Your task to perform on an android device: turn off location history Image 0: 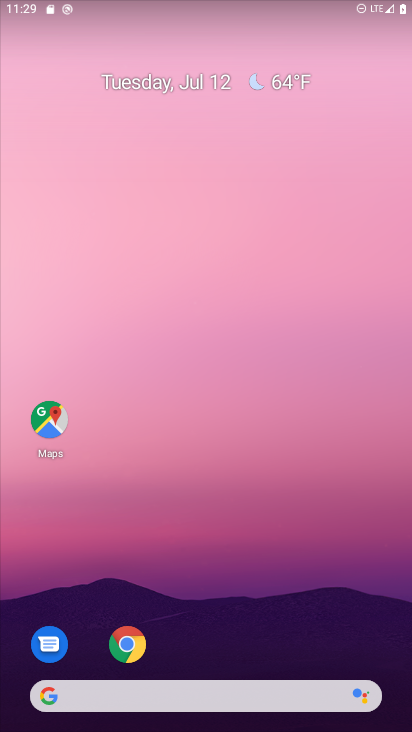
Step 0: drag from (270, 644) to (270, 171)
Your task to perform on an android device: turn off location history Image 1: 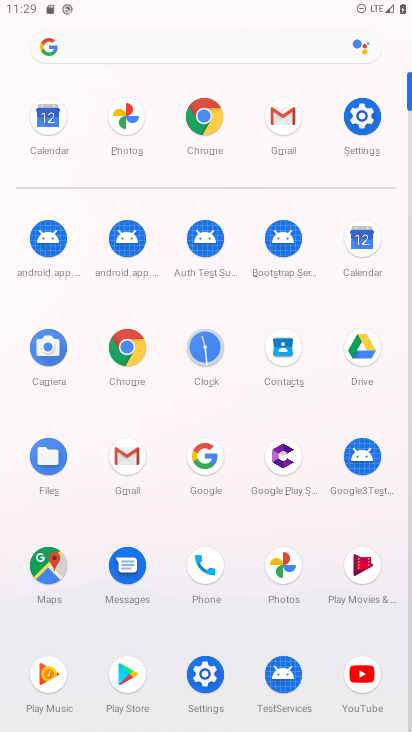
Step 1: click (360, 134)
Your task to perform on an android device: turn off location history Image 2: 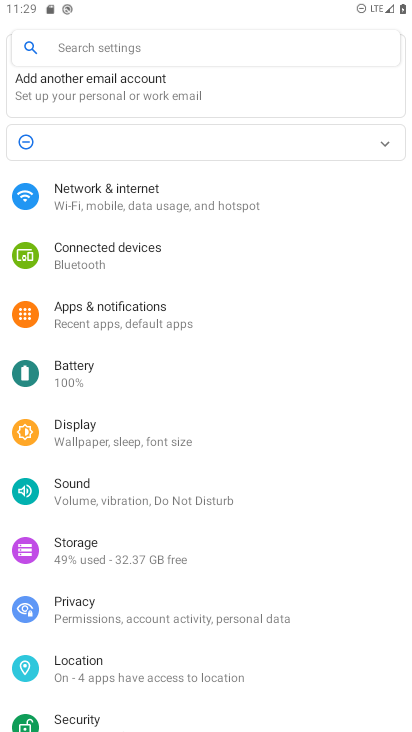
Step 2: click (113, 663)
Your task to perform on an android device: turn off location history Image 3: 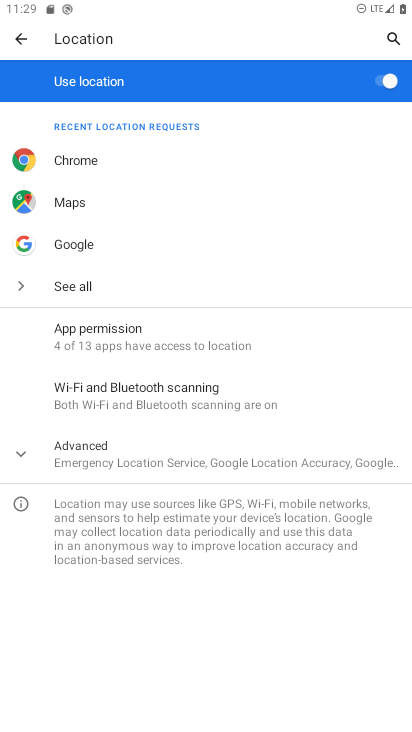
Step 3: click (384, 68)
Your task to perform on an android device: turn off location history Image 4: 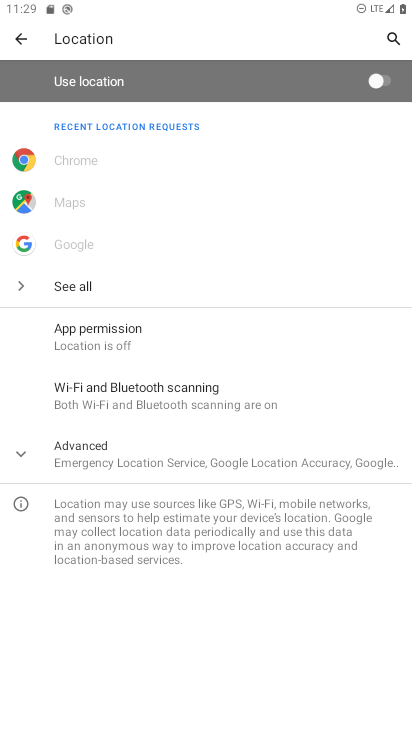
Step 4: task complete